Your task to perform on an android device: add a label to a message in the gmail app Image 0: 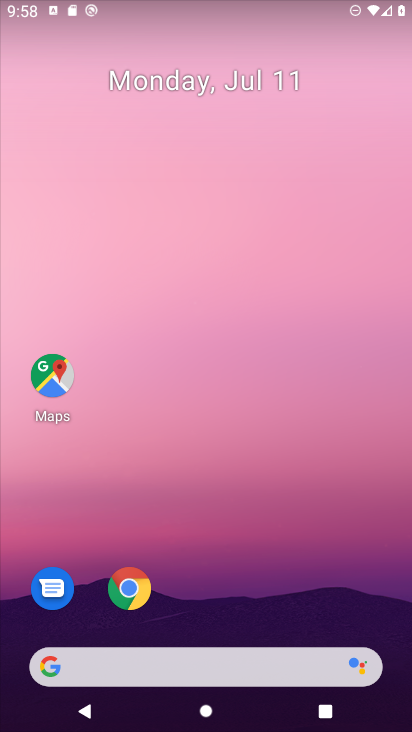
Step 0: drag from (381, 635) to (239, 16)
Your task to perform on an android device: add a label to a message in the gmail app Image 1: 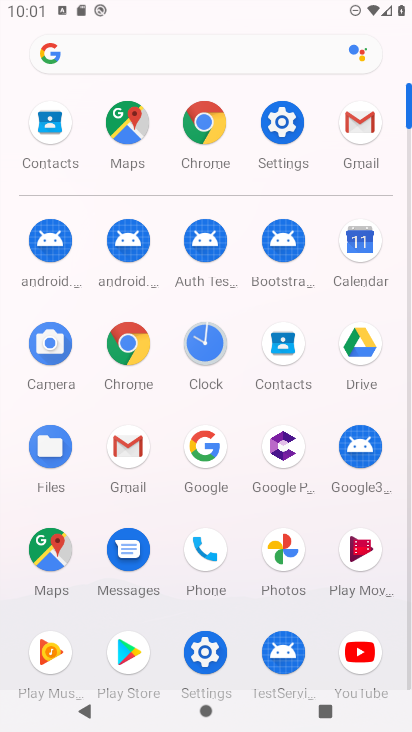
Step 1: click (121, 453)
Your task to perform on an android device: add a label to a message in the gmail app Image 2: 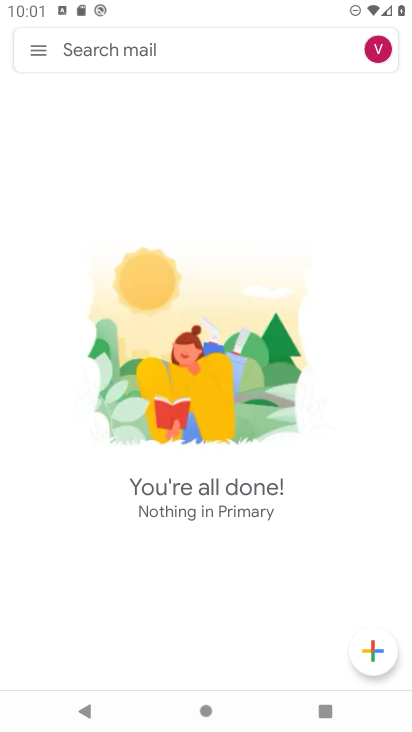
Step 2: task complete